Your task to perform on an android device: turn off airplane mode Image 0: 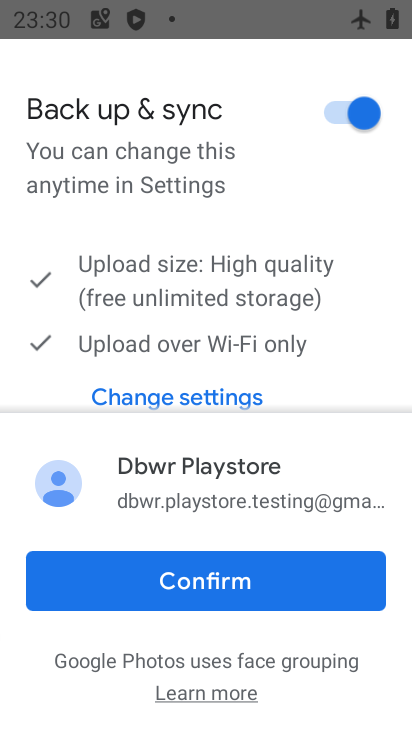
Step 0: press home button
Your task to perform on an android device: turn off airplane mode Image 1: 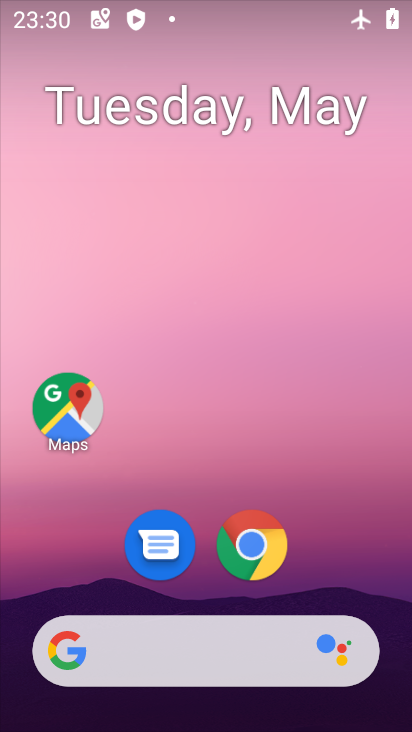
Step 1: drag from (192, 597) to (180, 323)
Your task to perform on an android device: turn off airplane mode Image 2: 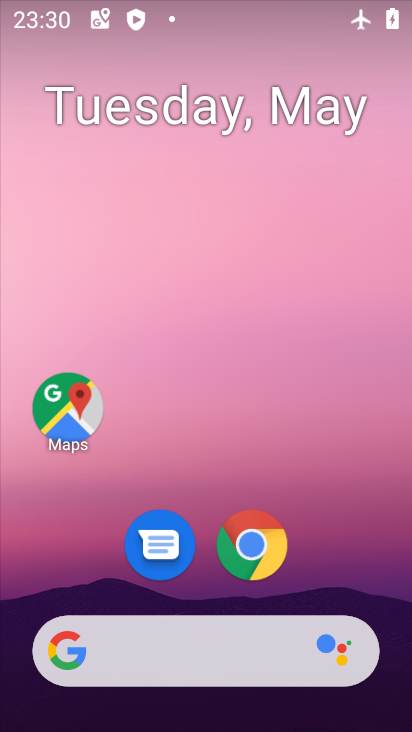
Step 2: drag from (192, 562) to (207, 282)
Your task to perform on an android device: turn off airplane mode Image 3: 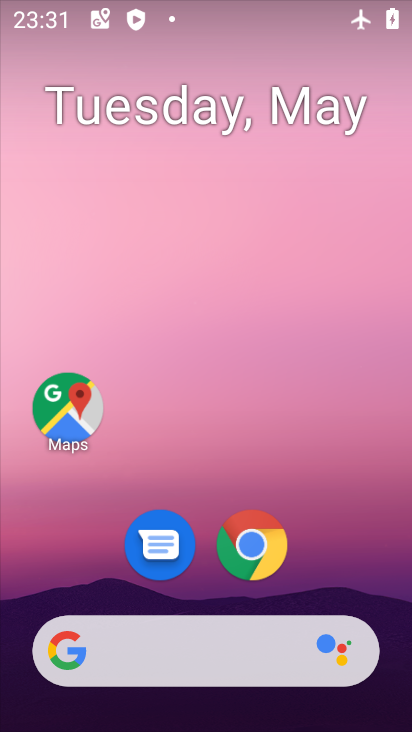
Step 3: drag from (201, 510) to (156, 105)
Your task to perform on an android device: turn off airplane mode Image 4: 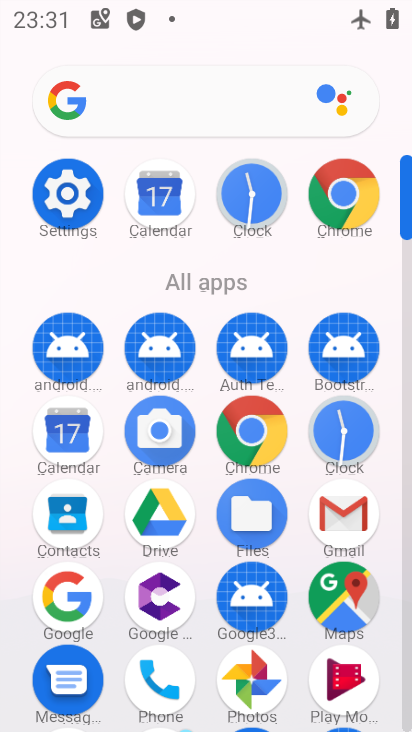
Step 4: click (60, 201)
Your task to perform on an android device: turn off airplane mode Image 5: 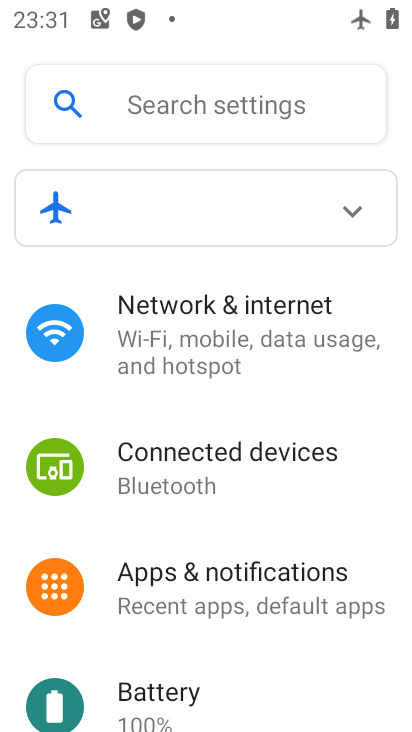
Step 5: click (197, 365)
Your task to perform on an android device: turn off airplane mode Image 6: 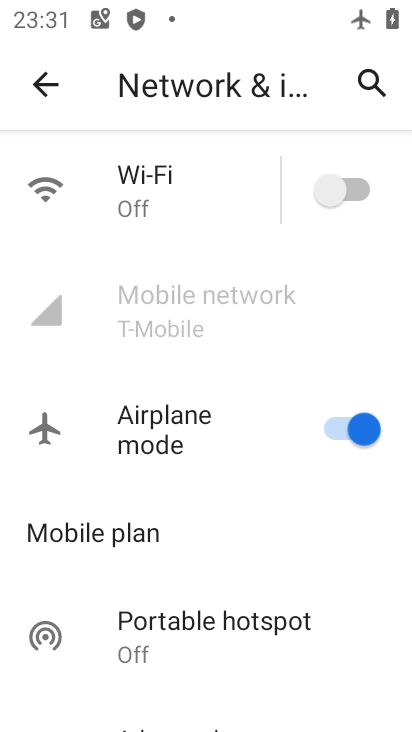
Step 6: click (327, 429)
Your task to perform on an android device: turn off airplane mode Image 7: 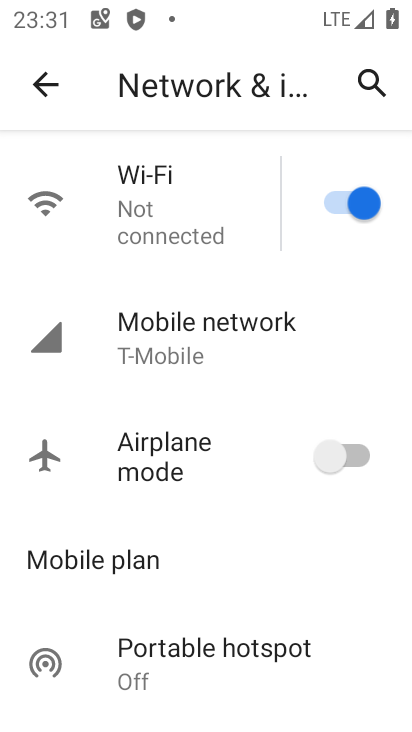
Step 7: task complete